Your task to perform on an android device: check battery use Image 0: 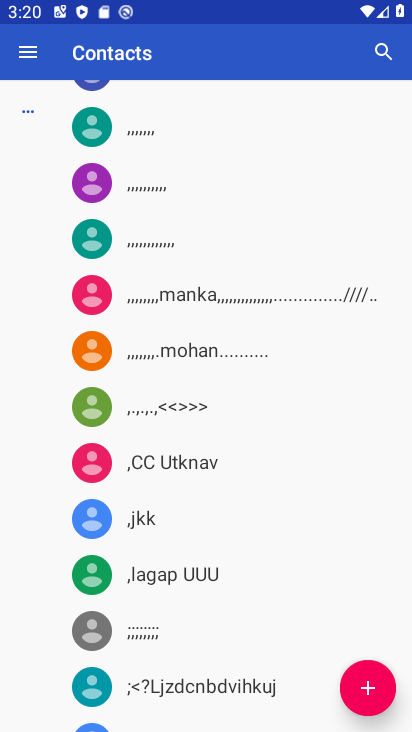
Step 0: press home button
Your task to perform on an android device: check battery use Image 1: 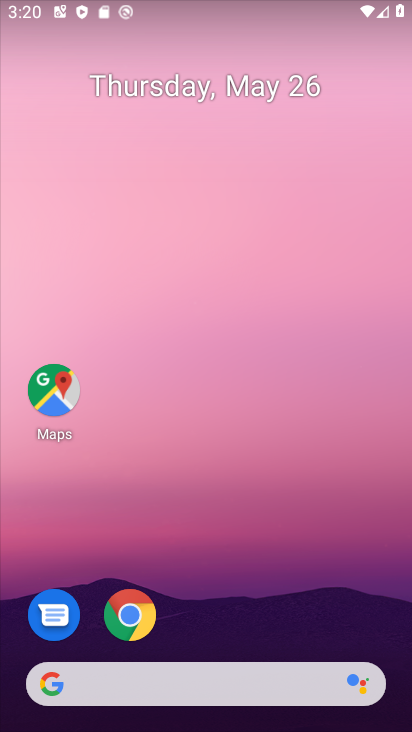
Step 1: drag from (231, 595) to (243, 172)
Your task to perform on an android device: check battery use Image 2: 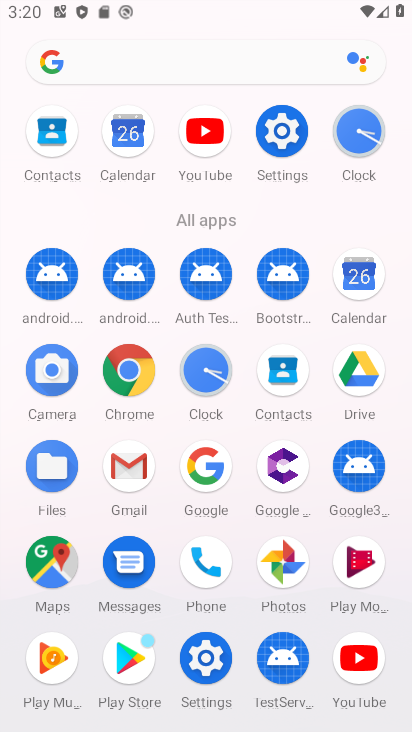
Step 2: click (206, 662)
Your task to perform on an android device: check battery use Image 3: 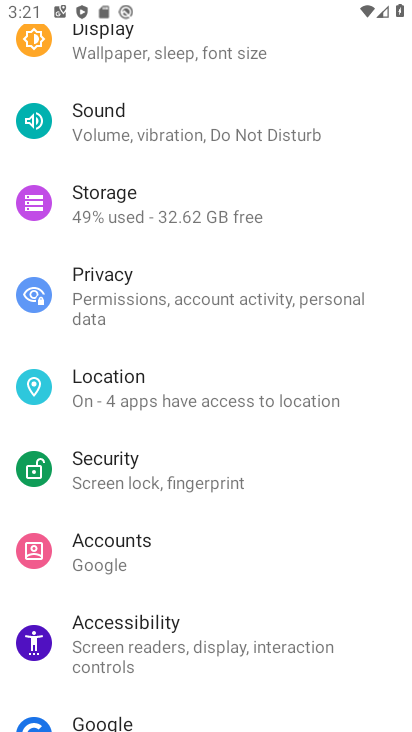
Step 3: drag from (209, 119) to (193, 441)
Your task to perform on an android device: check battery use Image 4: 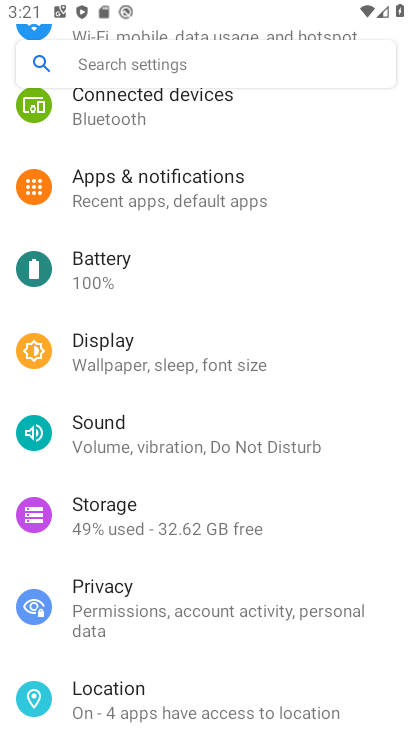
Step 4: drag from (174, 94) to (170, 402)
Your task to perform on an android device: check battery use Image 5: 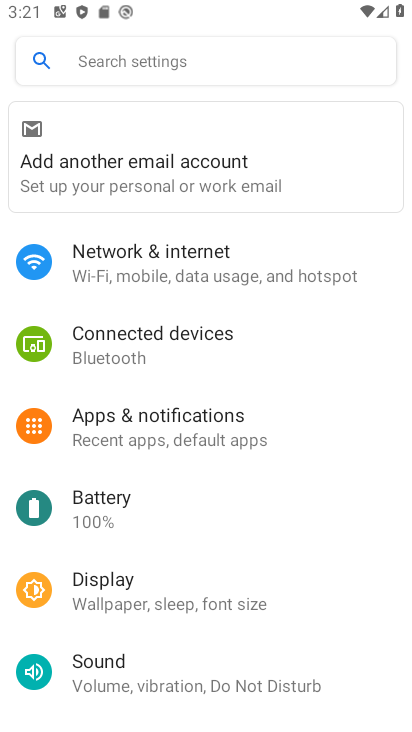
Step 5: click (171, 500)
Your task to perform on an android device: check battery use Image 6: 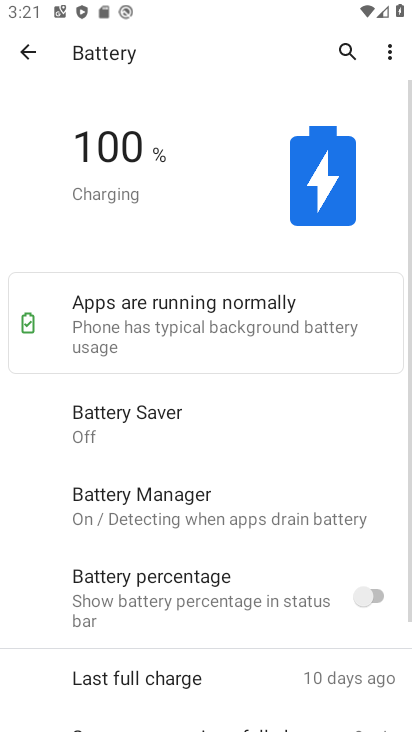
Step 6: click (389, 55)
Your task to perform on an android device: check battery use Image 7: 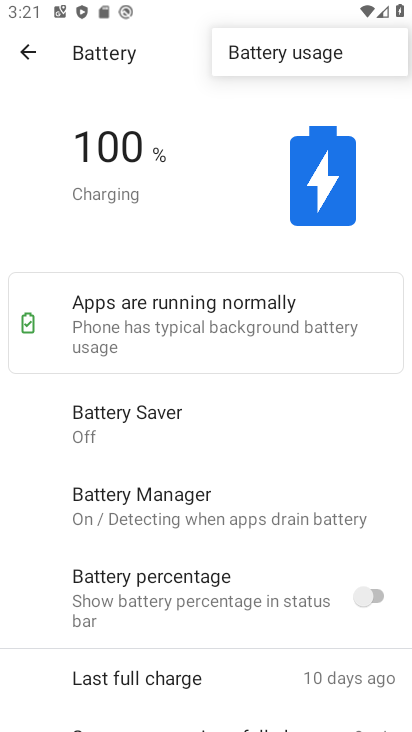
Step 7: click (352, 56)
Your task to perform on an android device: check battery use Image 8: 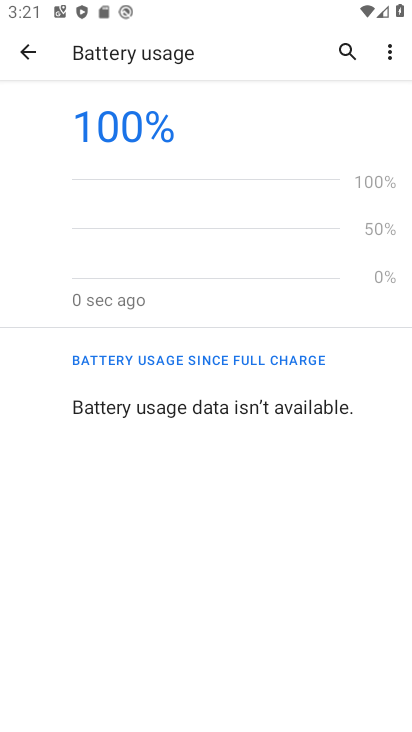
Step 8: task complete